Your task to perform on an android device: Go to Google maps Image 0: 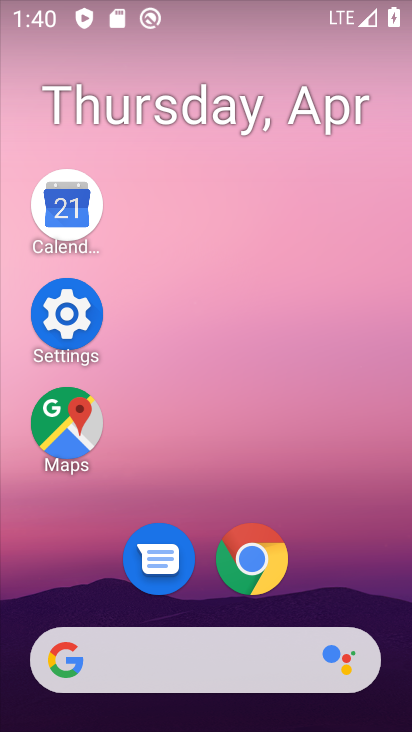
Step 0: click (89, 408)
Your task to perform on an android device: Go to Google maps Image 1: 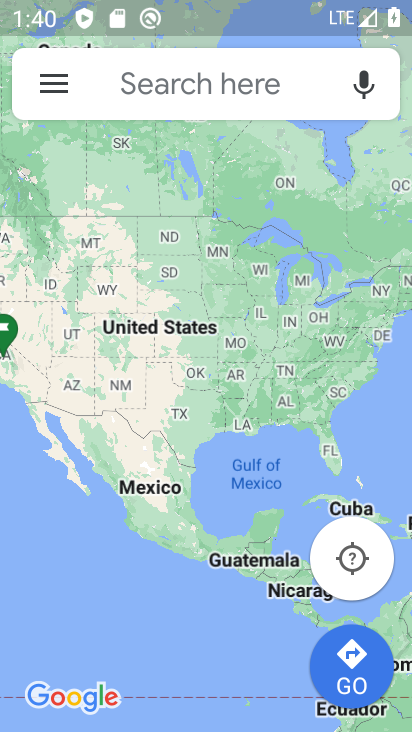
Step 1: task complete